Your task to perform on an android device: move a message to another label in the gmail app Image 0: 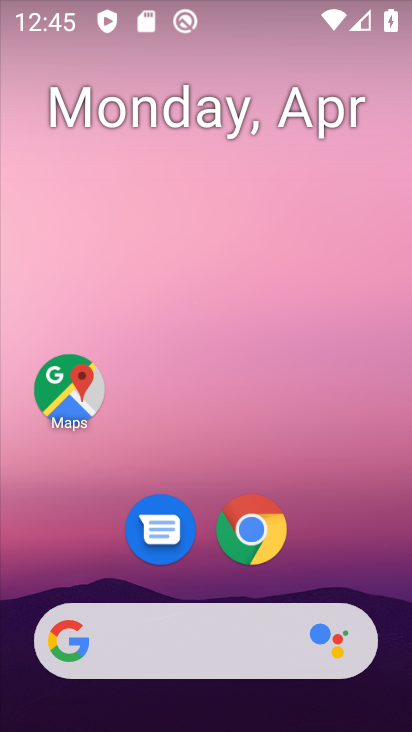
Step 0: drag from (109, 547) to (105, 206)
Your task to perform on an android device: move a message to another label in the gmail app Image 1: 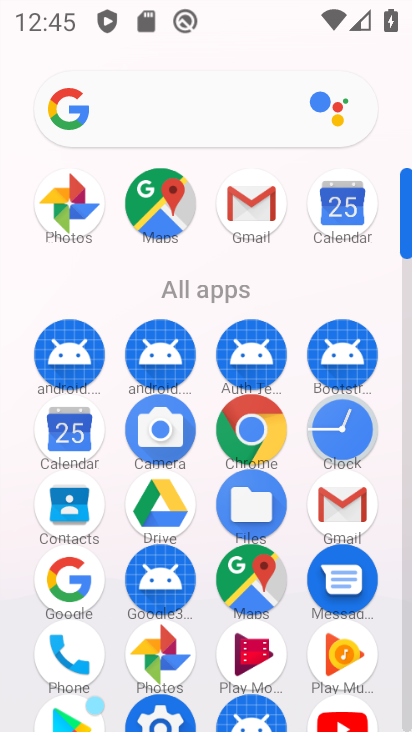
Step 1: click (339, 520)
Your task to perform on an android device: move a message to another label in the gmail app Image 2: 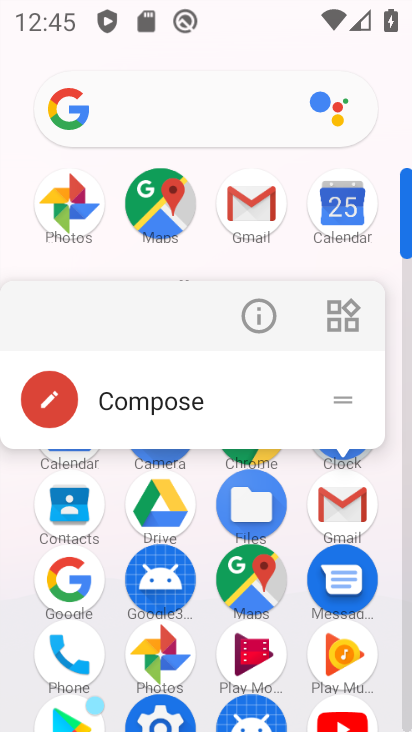
Step 2: click (256, 212)
Your task to perform on an android device: move a message to another label in the gmail app Image 3: 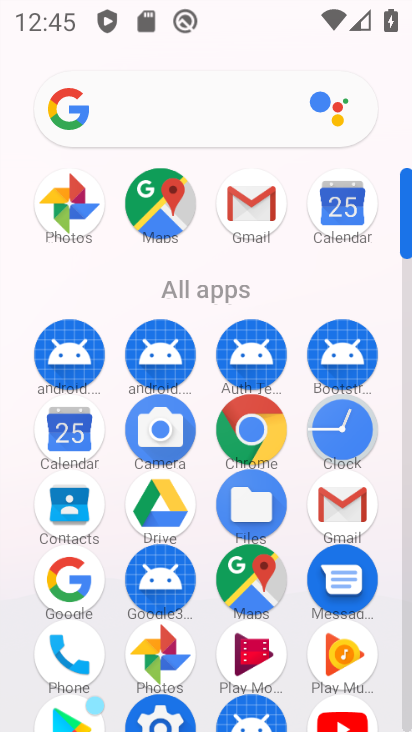
Step 3: click (253, 197)
Your task to perform on an android device: move a message to another label in the gmail app Image 4: 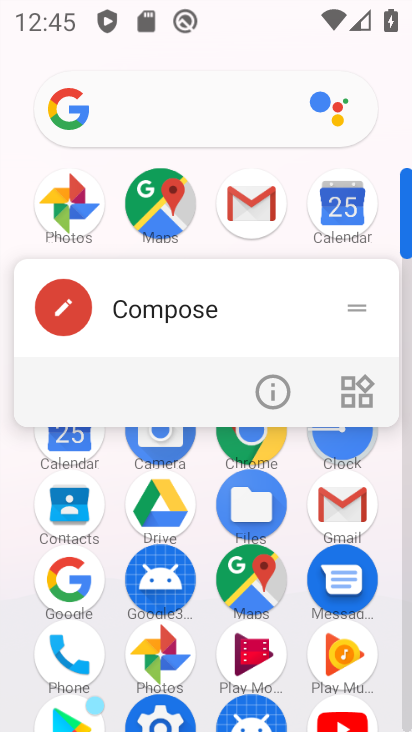
Step 4: click (268, 393)
Your task to perform on an android device: move a message to another label in the gmail app Image 5: 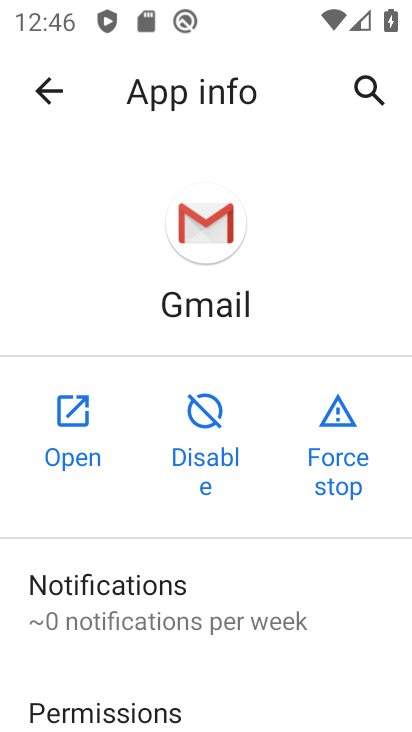
Step 5: click (77, 431)
Your task to perform on an android device: move a message to another label in the gmail app Image 6: 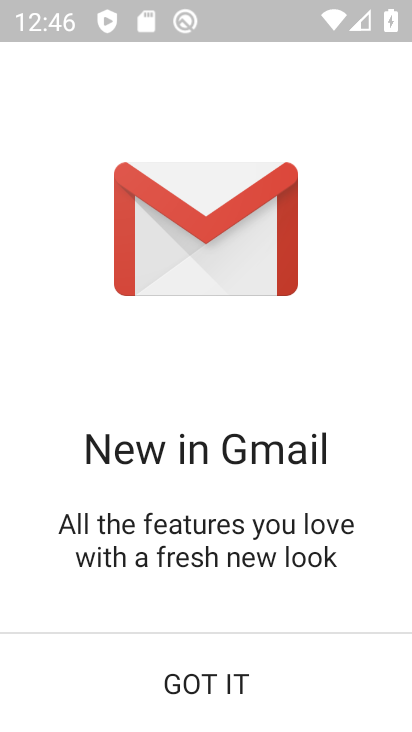
Step 6: click (190, 682)
Your task to perform on an android device: move a message to another label in the gmail app Image 7: 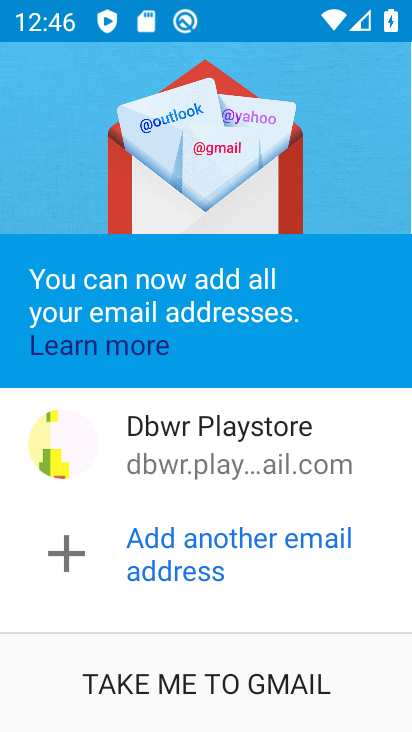
Step 7: click (194, 679)
Your task to perform on an android device: move a message to another label in the gmail app Image 8: 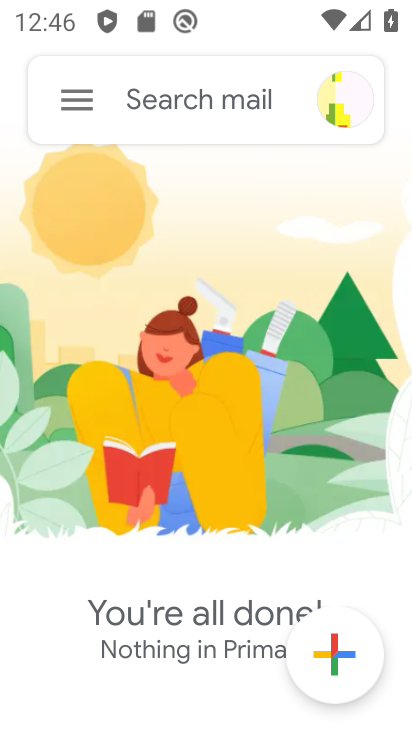
Step 8: click (79, 91)
Your task to perform on an android device: move a message to another label in the gmail app Image 9: 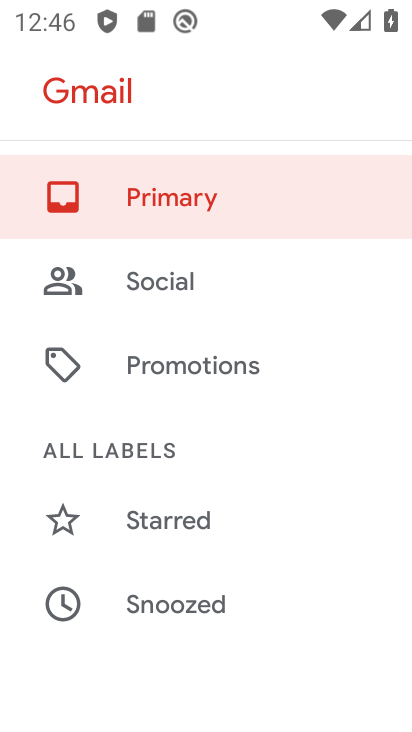
Step 9: drag from (213, 625) to (260, 221)
Your task to perform on an android device: move a message to another label in the gmail app Image 10: 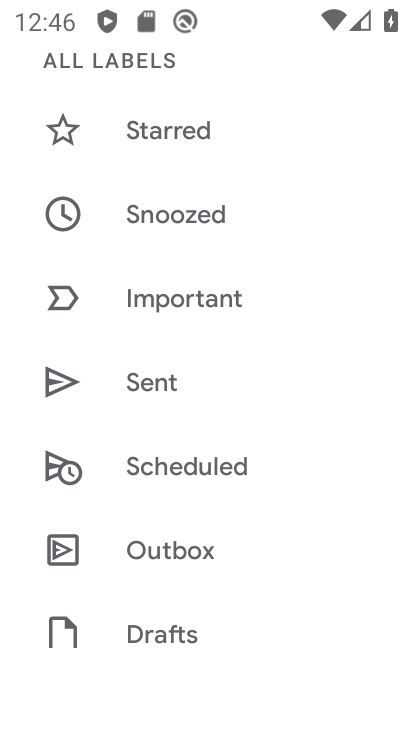
Step 10: drag from (196, 537) to (177, 297)
Your task to perform on an android device: move a message to another label in the gmail app Image 11: 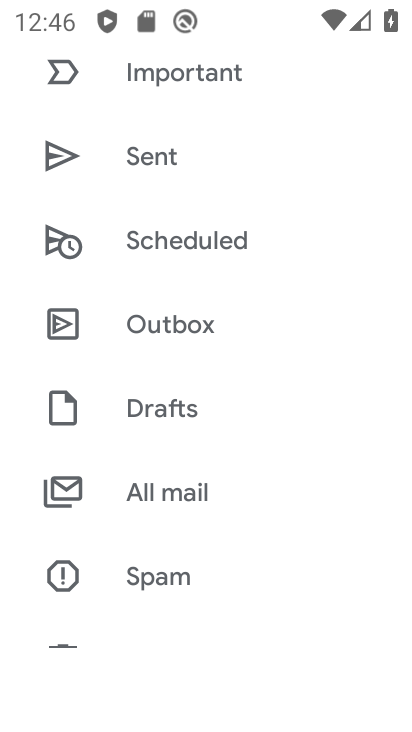
Step 11: click (180, 485)
Your task to perform on an android device: move a message to another label in the gmail app Image 12: 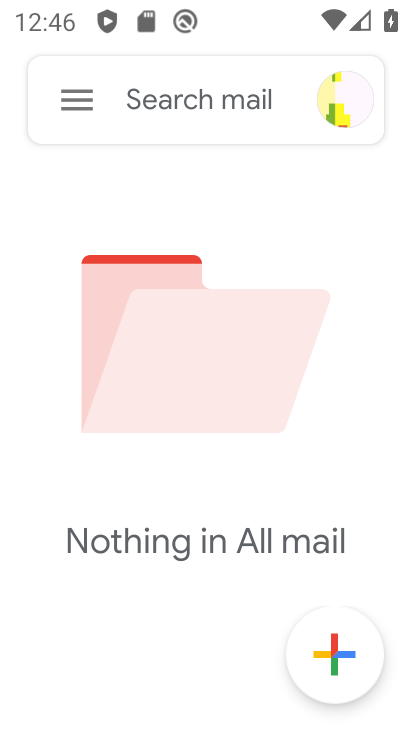
Step 12: task complete